Your task to perform on an android device: Open Wikipedia Image 0: 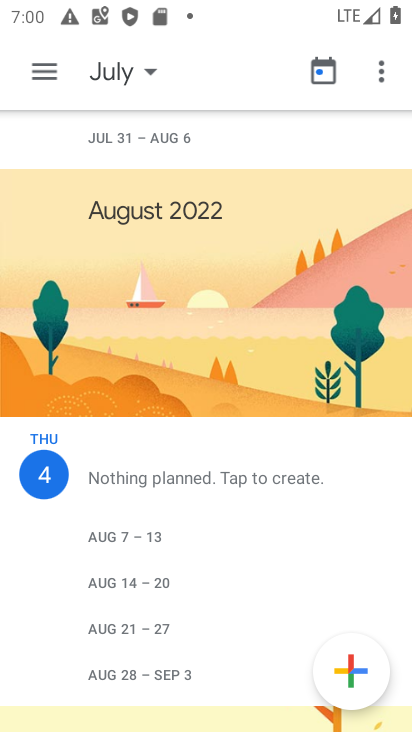
Step 0: press home button
Your task to perform on an android device: Open Wikipedia Image 1: 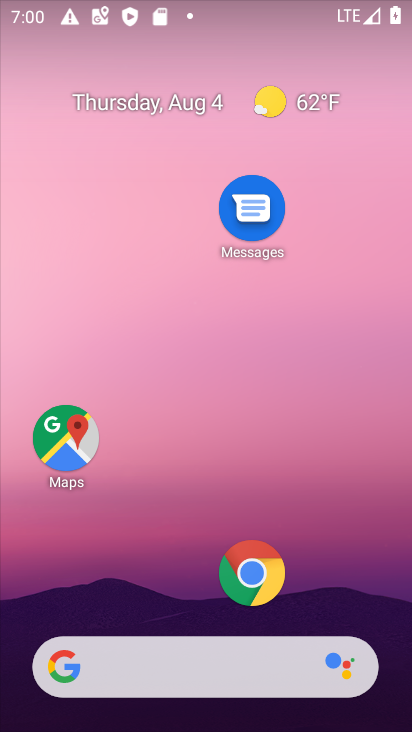
Step 1: click (63, 663)
Your task to perform on an android device: Open Wikipedia Image 2: 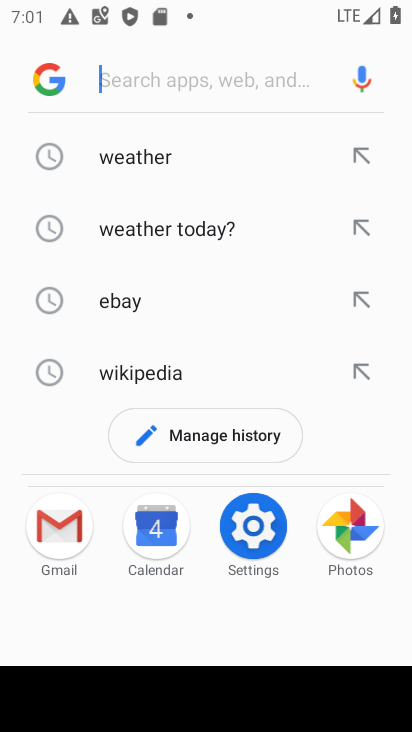
Step 2: click (147, 376)
Your task to perform on an android device: Open Wikipedia Image 3: 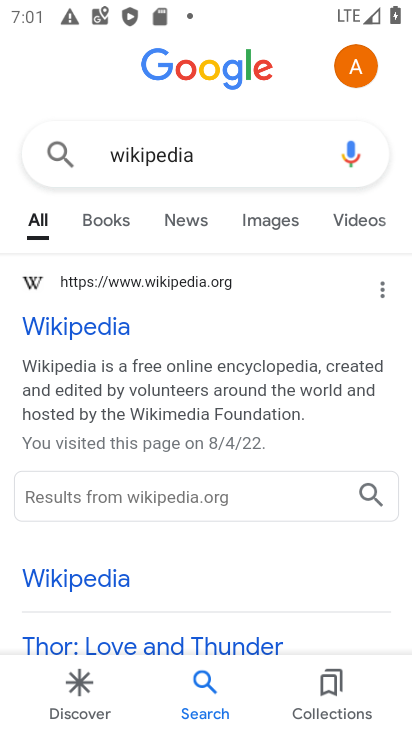
Step 3: click (84, 330)
Your task to perform on an android device: Open Wikipedia Image 4: 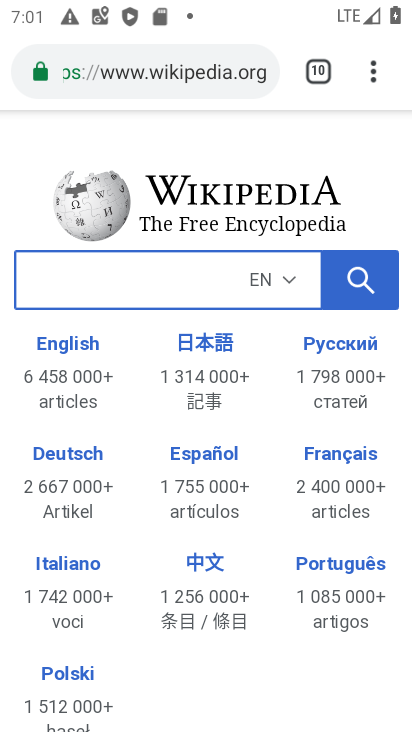
Step 4: task complete